Your task to perform on an android device: Open Youtube and go to "Your channel" Image 0: 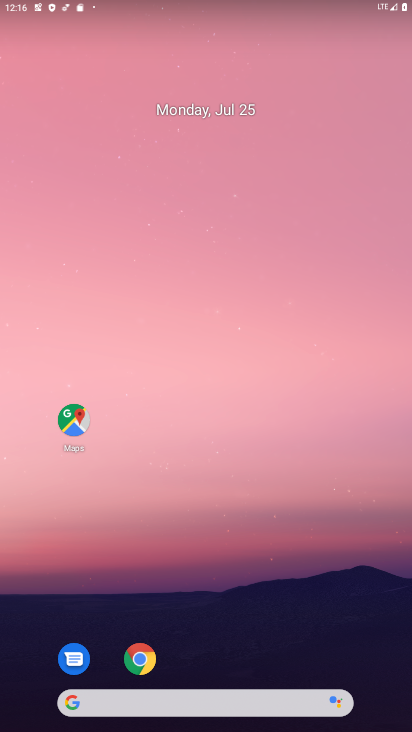
Step 0: drag from (111, 465) to (182, 265)
Your task to perform on an android device: Open Youtube and go to "Your channel" Image 1: 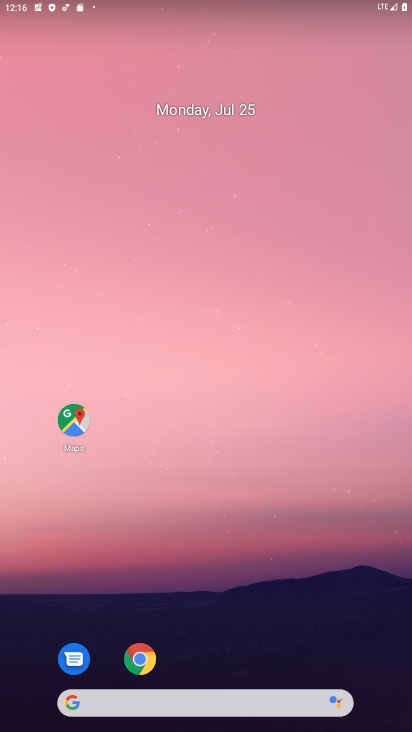
Step 1: drag from (56, 580) to (325, 30)
Your task to perform on an android device: Open Youtube and go to "Your channel" Image 2: 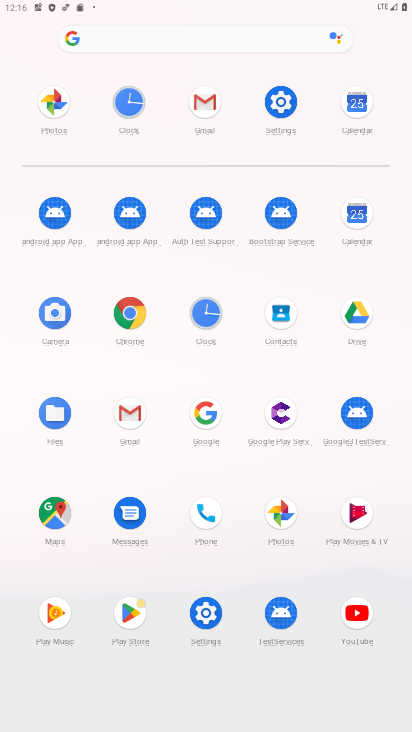
Step 2: click (370, 600)
Your task to perform on an android device: Open Youtube and go to "Your channel" Image 3: 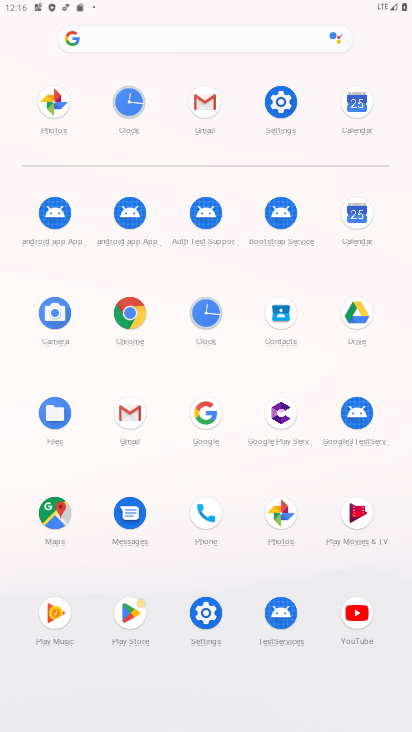
Step 3: click (338, 626)
Your task to perform on an android device: Open Youtube and go to "Your channel" Image 4: 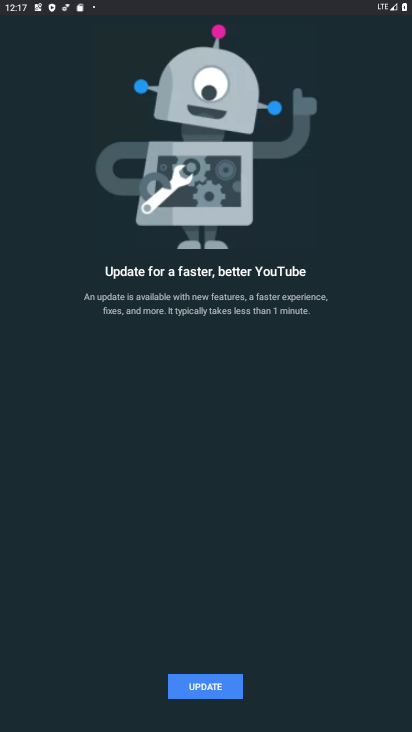
Step 4: click (208, 681)
Your task to perform on an android device: Open Youtube and go to "Your channel" Image 5: 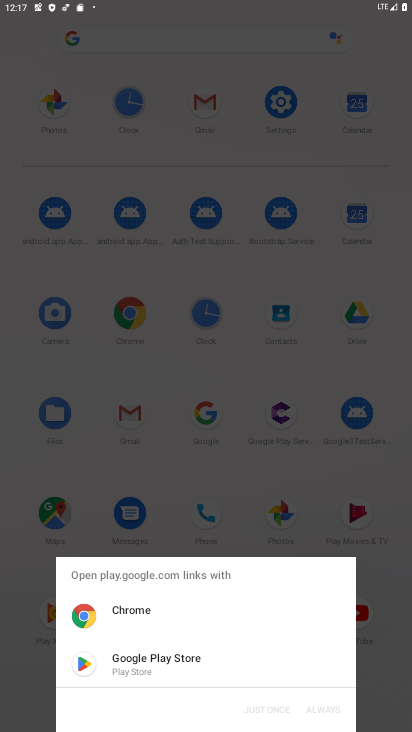
Step 5: click (122, 672)
Your task to perform on an android device: Open Youtube and go to "Your channel" Image 6: 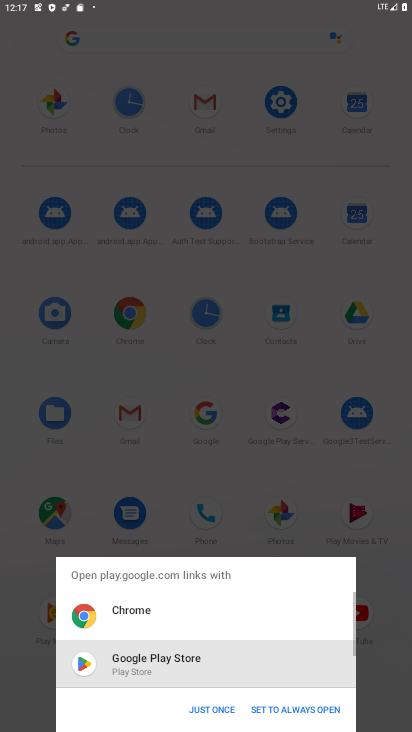
Step 6: click (218, 713)
Your task to perform on an android device: Open Youtube and go to "Your channel" Image 7: 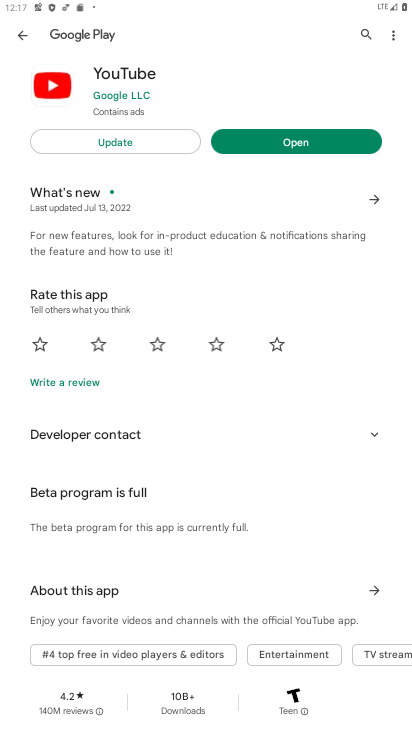
Step 7: click (253, 123)
Your task to perform on an android device: Open Youtube and go to "Your channel" Image 8: 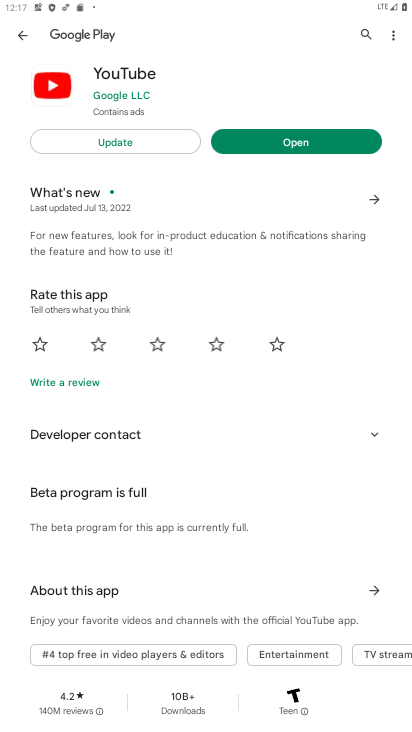
Step 8: click (271, 141)
Your task to perform on an android device: Open Youtube and go to "Your channel" Image 9: 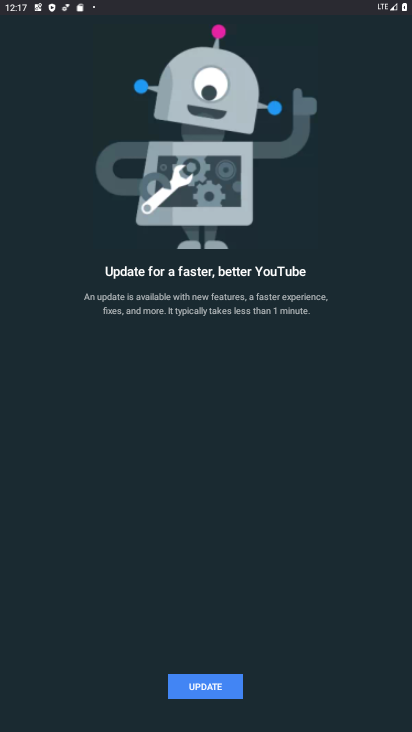
Step 9: task complete